Your task to perform on an android device: Go to sound settings Image 0: 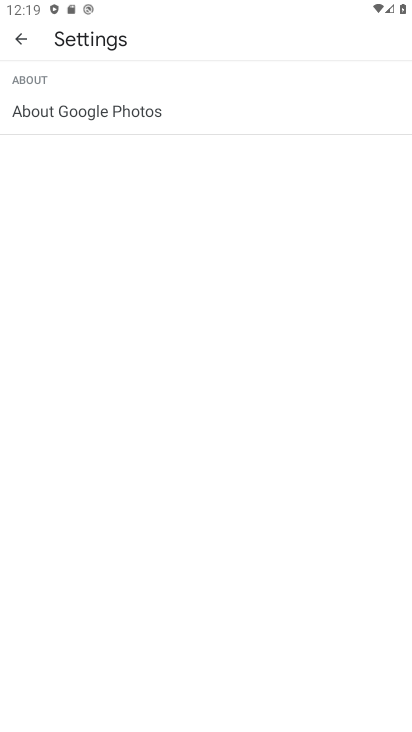
Step 0: press home button
Your task to perform on an android device: Go to sound settings Image 1: 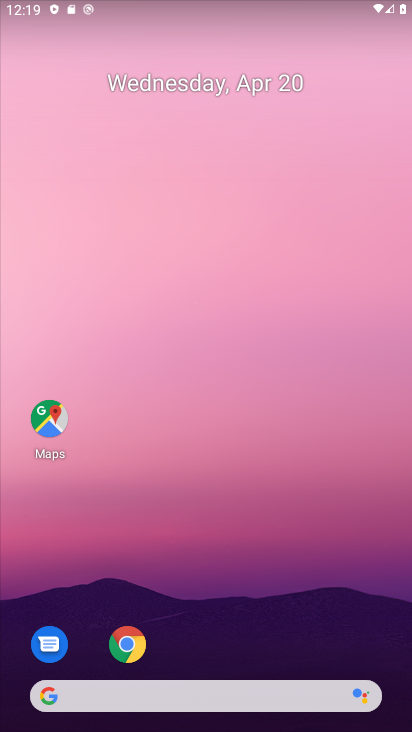
Step 1: drag from (227, 600) to (195, 0)
Your task to perform on an android device: Go to sound settings Image 2: 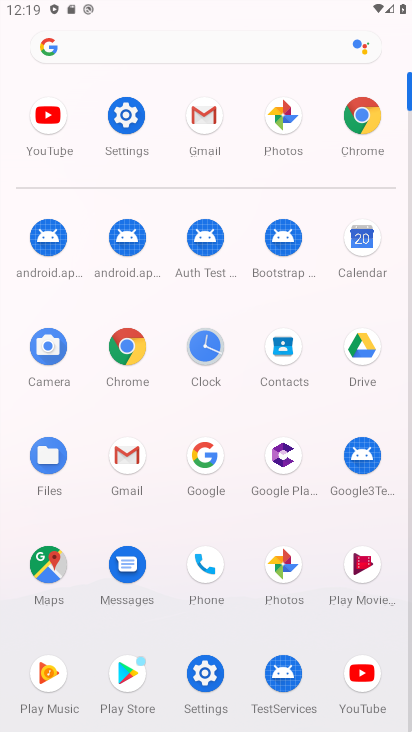
Step 2: click (134, 119)
Your task to perform on an android device: Go to sound settings Image 3: 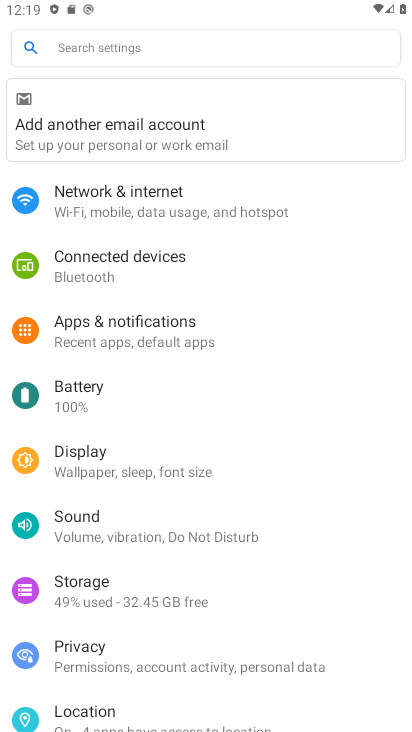
Step 3: click (118, 516)
Your task to perform on an android device: Go to sound settings Image 4: 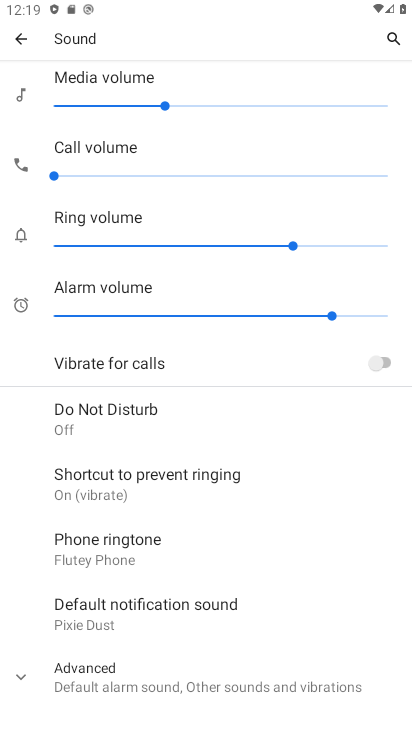
Step 4: task complete